Your task to perform on an android device: Go to notification settings Image 0: 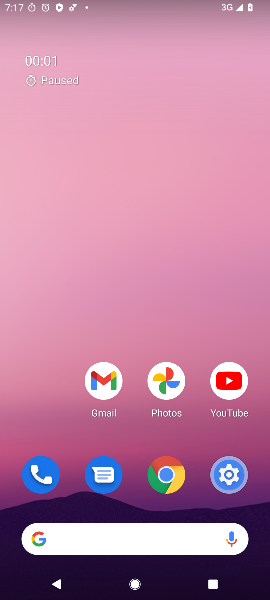
Step 0: drag from (205, 502) to (112, 0)
Your task to perform on an android device: Go to notification settings Image 1: 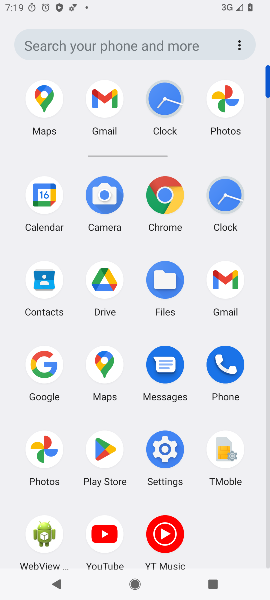
Step 1: click (154, 467)
Your task to perform on an android device: Go to notification settings Image 2: 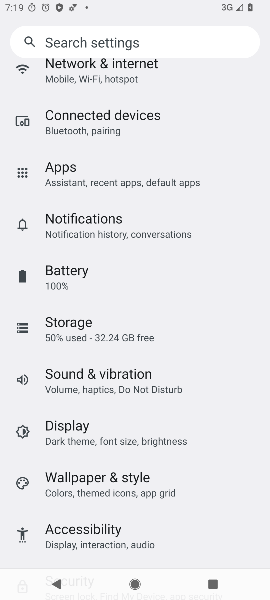
Step 2: click (147, 236)
Your task to perform on an android device: Go to notification settings Image 3: 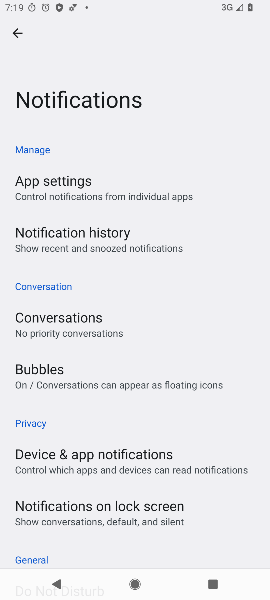
Step 3: task complete